Your task to perform on an android device: Open Wikipedia Image 0: 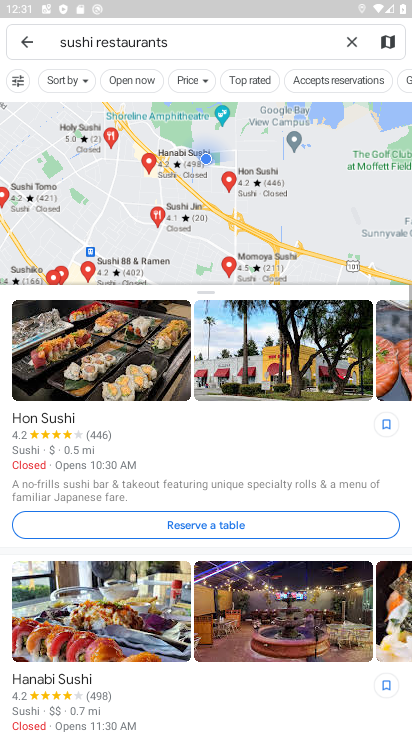
Step 0: press home button
Your task to perform on an android device: Open Wikipedia Image 1: 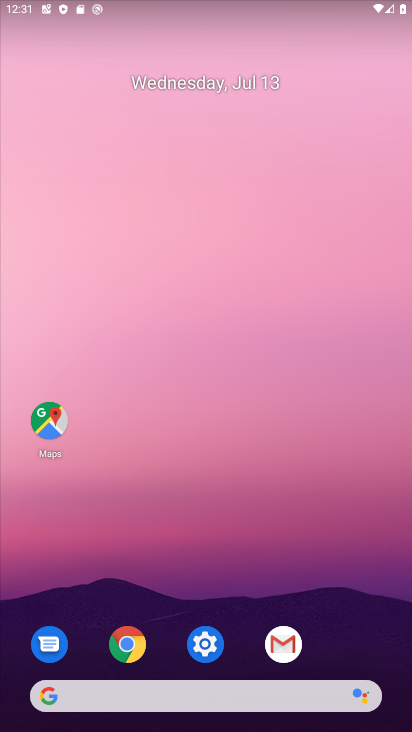
Step 1: click (135, 633)
Your task to perform on an android device: Open Wikipedia Image 2: 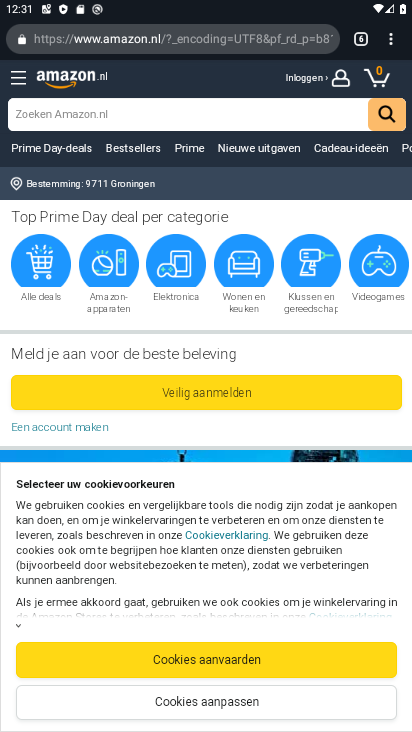
Step 2: click (393, 46)
Your task to perform on an android device: Open Wikipedia Image 3: 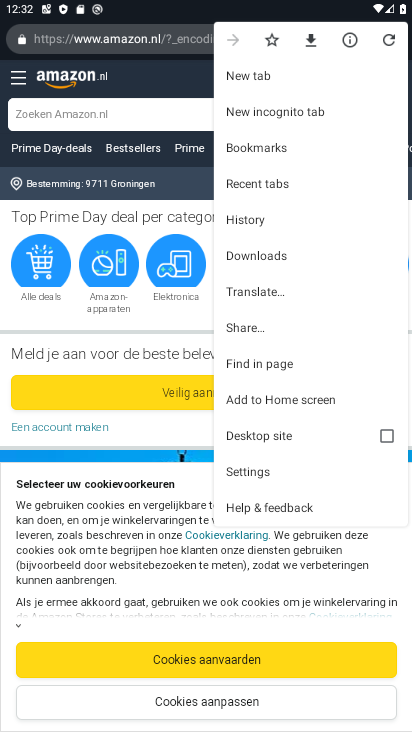
Step 3: click (249, 77)
Your task to perform on an android device: Open Wikipedia Image 4: 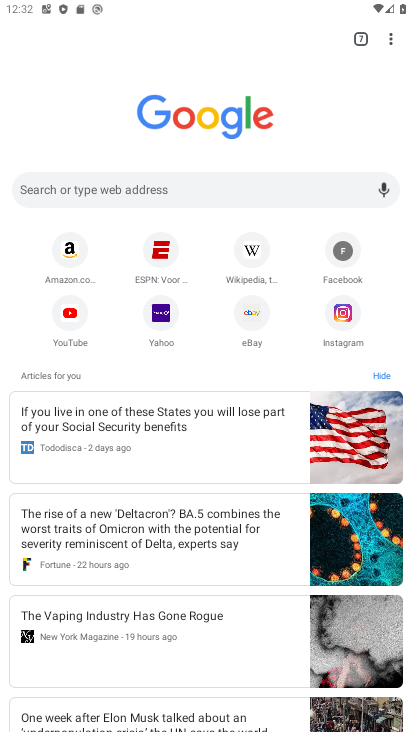
Step 4: click (251, 254)
Your task to perform on an android device: Open Wikipedia Image 5: 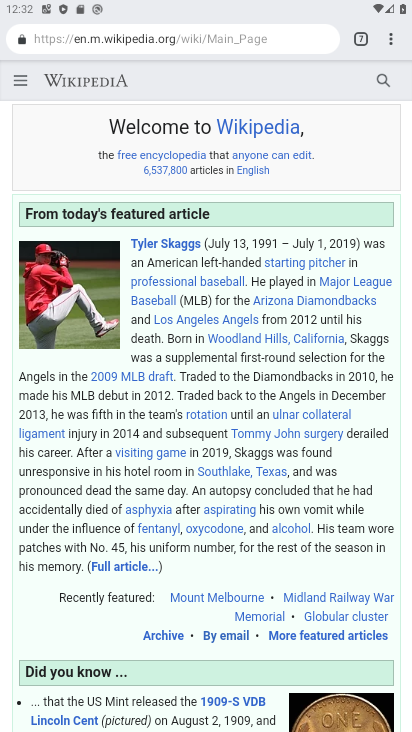
Step 5: task complete